Your task to perform on an android device: Open calendar and show me the fourth week of next month Image 0: 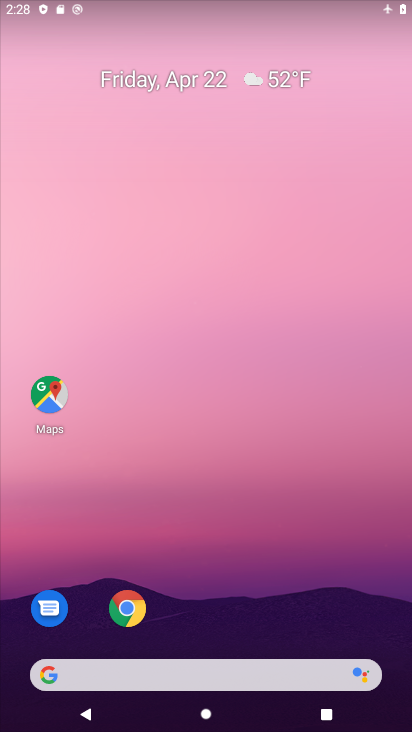
Step 0: drag from (246, 600) to (234, 166)
Your task to perform on an android device: Open calendar and show me the fourth week of next month Image 1: 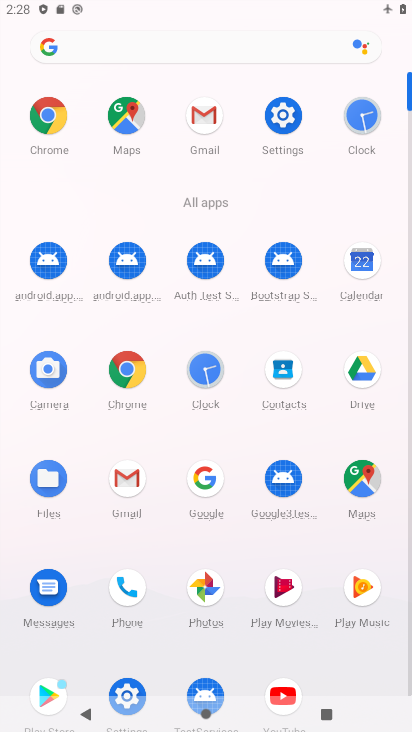
Step 1: click (361, 264)
Your task to perform on an android device: Open calendar and show me the fourth week of next month Image 2: 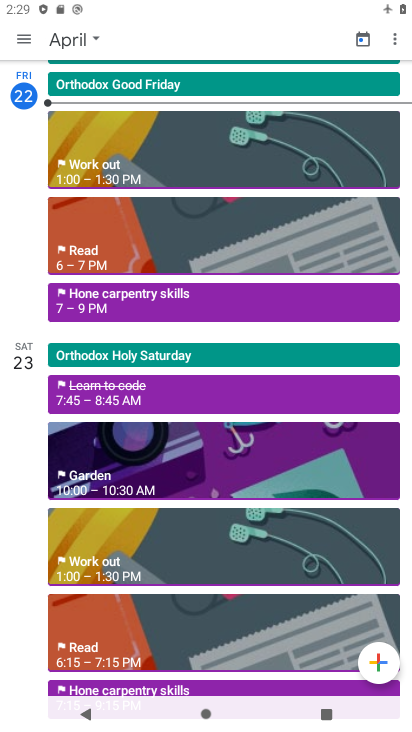
Step 2: click (94, 37)
Your task to perform on an android device: Open calendar and show me the fourth week of next month Image 3: 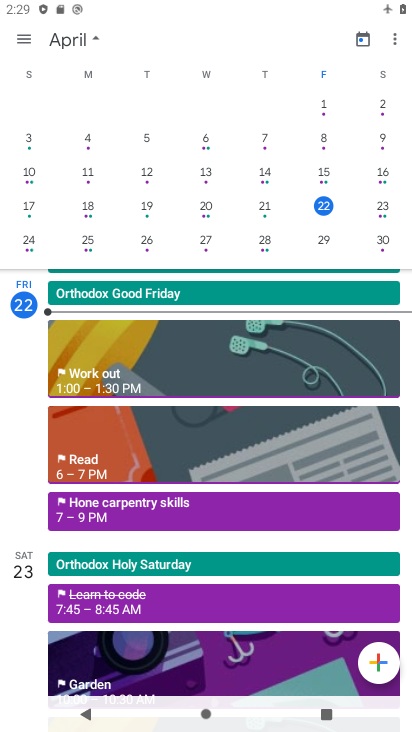
Step 3: drag from (176, 141) to (21, 177)
Your task to perform on an android device: Open calendar and show me the fourth week of next month Image 4: 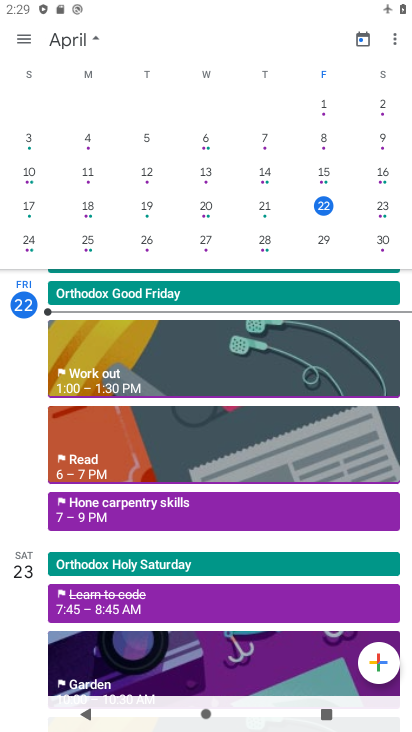
Step 4: click (12, 211)
Your task to perform on an android device: Open calendar and show me the fourth week of next month Image 5: 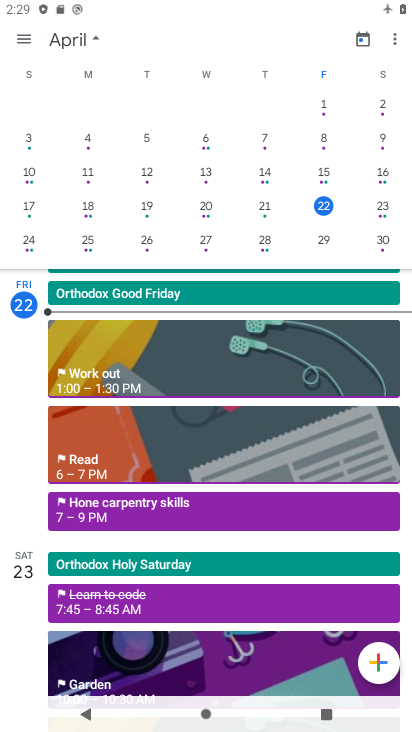
Step 5: drag from (342, 180) to (4, 151)
Your task to perform on an android device: Open calendar and show me the fourth week of next month Image 6: 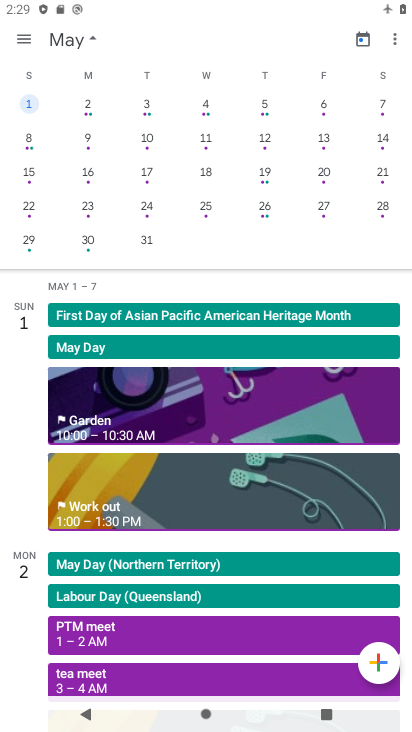
Step 6: click (25, 209)
Your task to perform on an android device: Open calendar and show me the fourth week of next month Image 7: 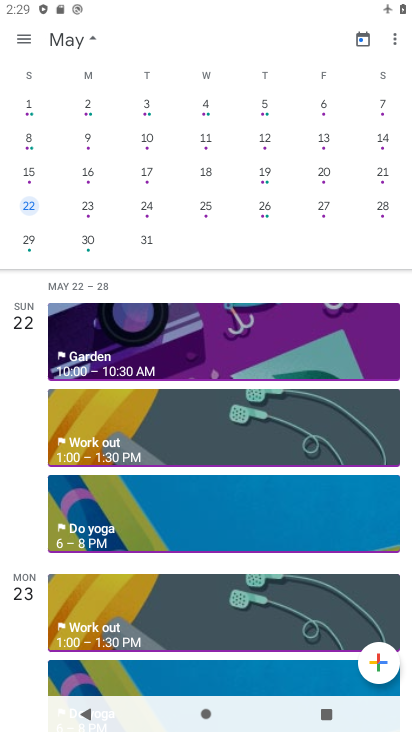
Step 7: click (17, 30)
Your task to perform on an android device: Open calendar and show me the fourth week of next month Image 8: 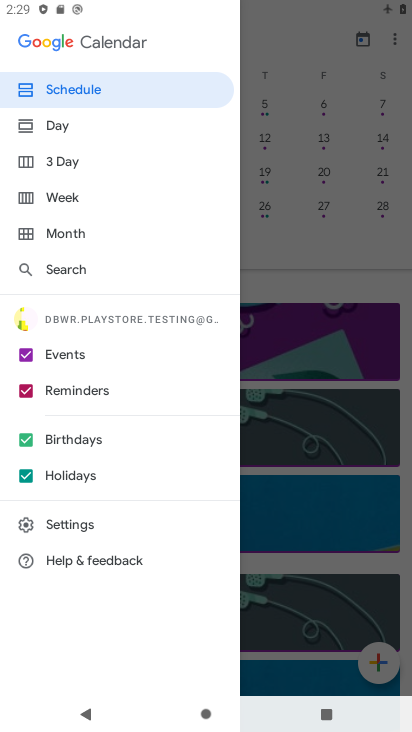
Step 8: click (61, 197)
Your task to perform on an android device: Open calendar and show me the fourth week of next month Image 9: 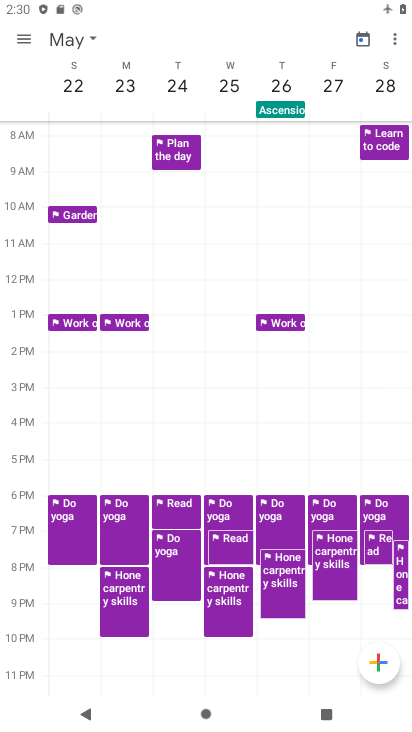
Step 9: task complete